Your task to perform on an android device: What's the weather going to be tomorrow? Image 0: 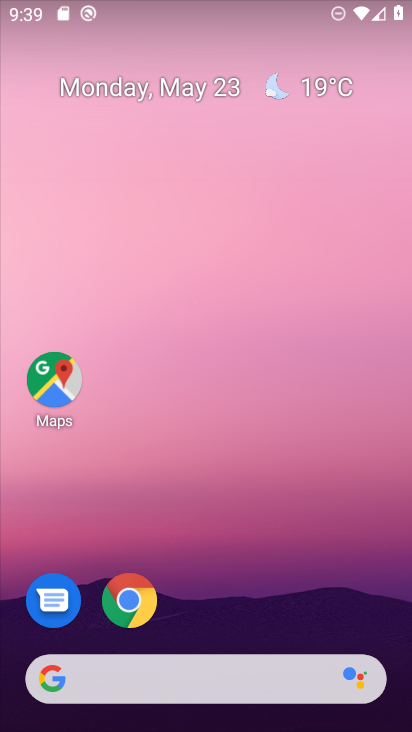
Step 0: click (149, 670)
Your task to perform on an android device: What's the weather going to be tomorrow? Image 1: 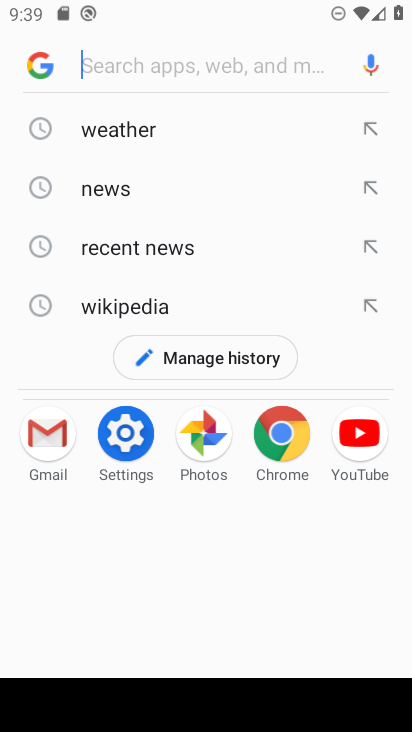
Step 1: click (132, 127)
Your task to perform on an android device: What's the weather going to be tomorrow? Image 2: 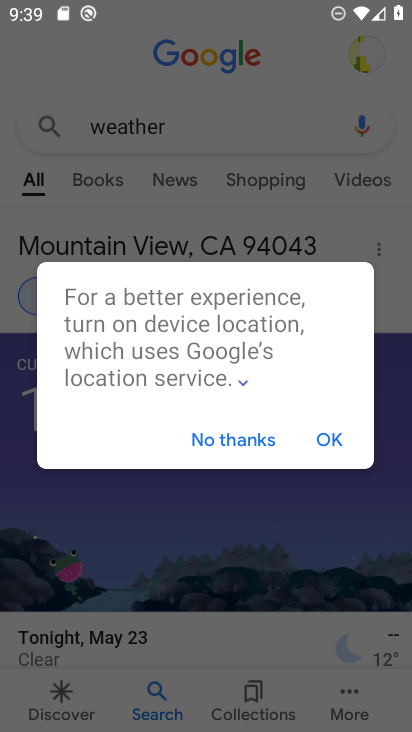
Step 2: click (242, 438)
Your task to perform on an android device: What's the weather going to be tomorrow? Image 3: 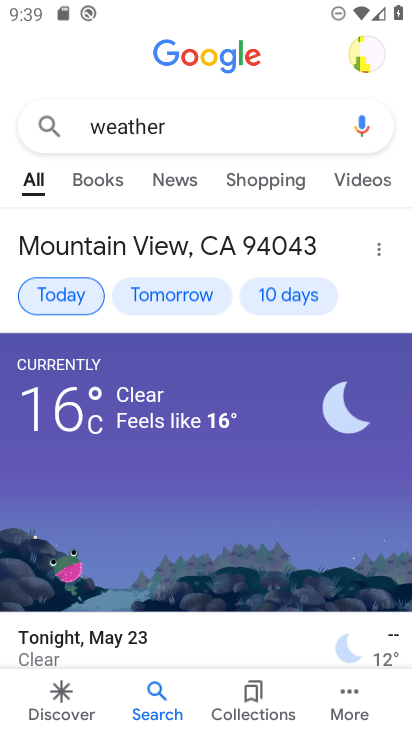
Step 3: click (148, 297)
Your task to perform on an android device: What's the weather going to be tomorrow? Image 4: 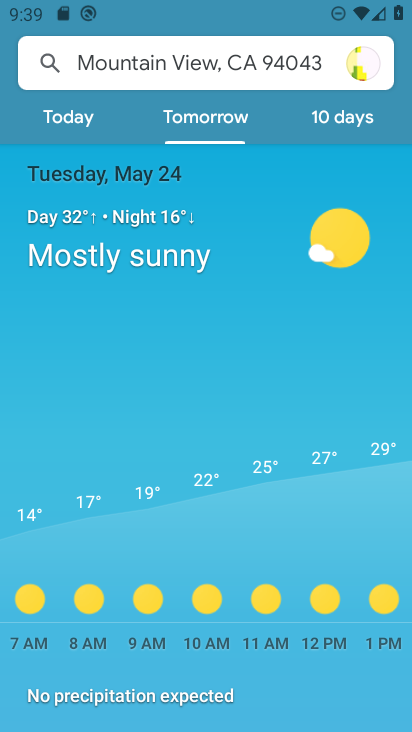
Step 4: task complete